Your task to perform on an android device: Do I have any events this weekend? Image 0: 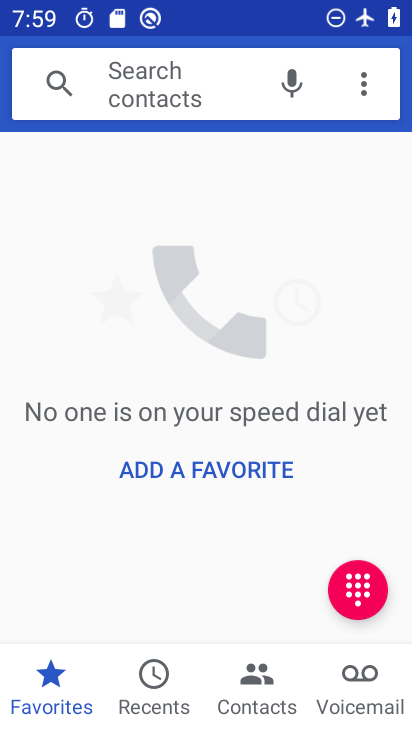
Step 0: press home button
Your task to perform on an android device: Do I have any events this weekend? Image 1: 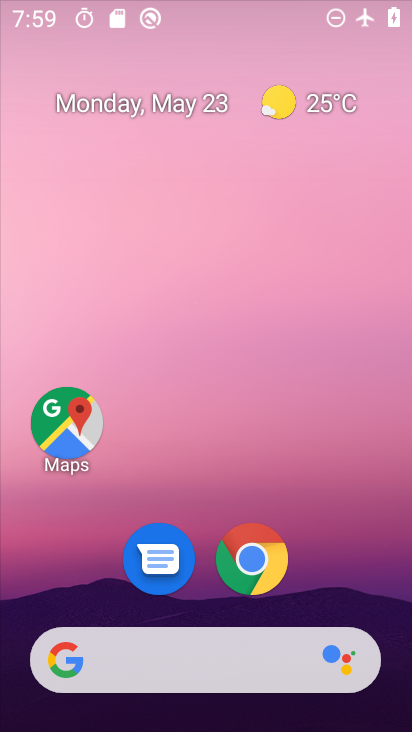
Step 1: drag from (391, 603) to (252, 72)
Your task to perform on an android device: Do I have any events this weekend? Image 2: 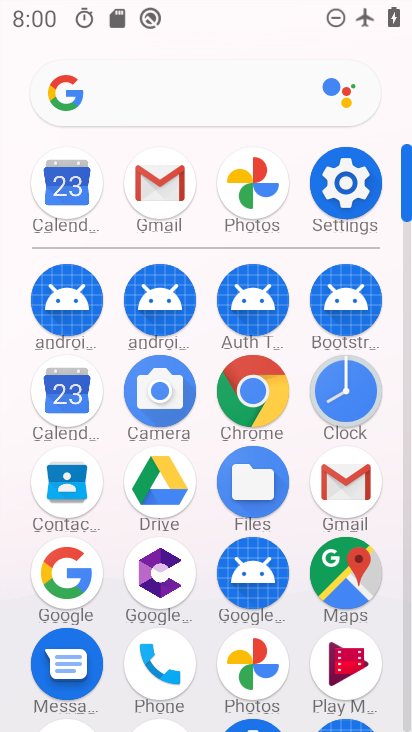
Step 2: click (83, 394)
Your task to perform on an android device: Do I have any events this weekend? Image 3: 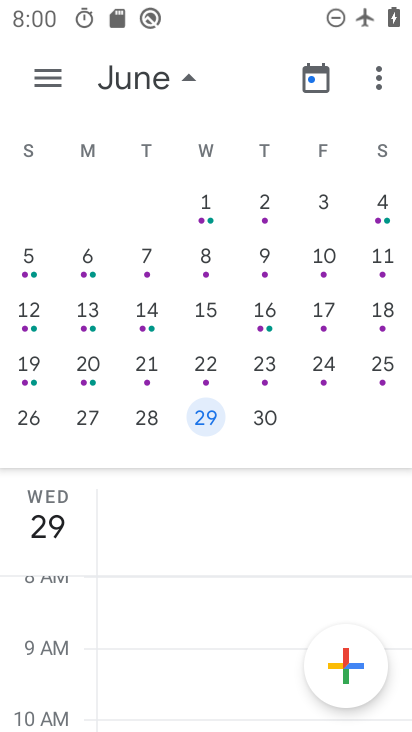
Step 3: task complete